Your task to perform on an android device: change the upload size in google photos Image 0: 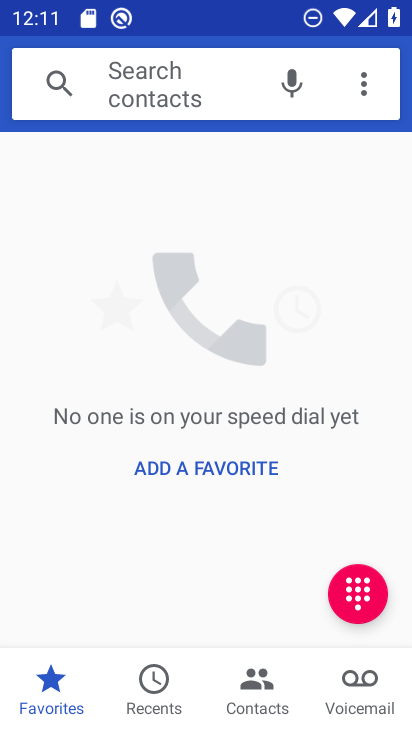
Step 0: press home button
Your task to perform on an android device: change the upload size in google photos Image 1: 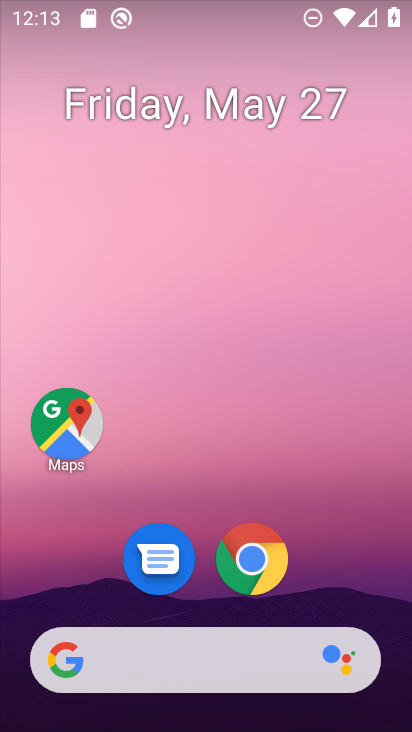
Step 1: drag from (283, 446) to (270, 249)
Your task to perform on an android device: change the upload size in google photos Image 2: 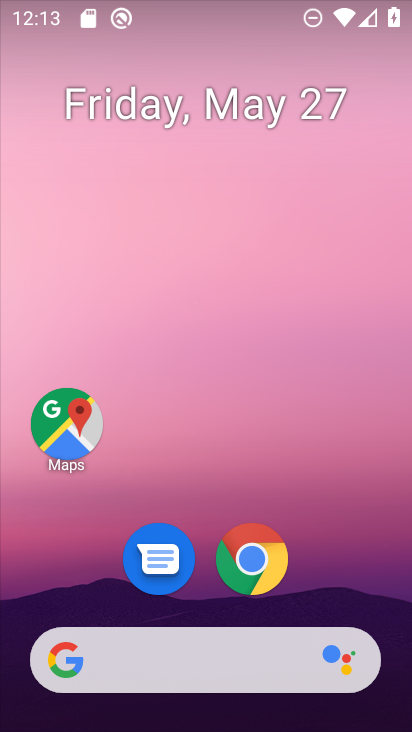
Step 2: drag from (281, 299) to (257, 4)
Your task to perform on an android device: change the upload size in google photos Image 3: 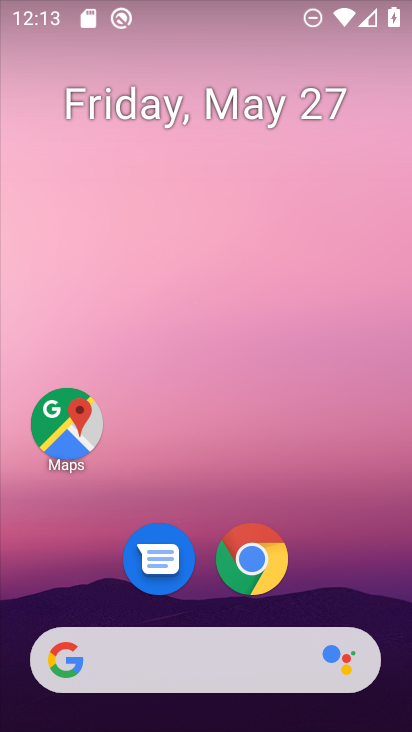
Step 3: drag from (300, 546) to (281, 8)
Your task to perform on an android device: change the upload size in google photos Image 4: 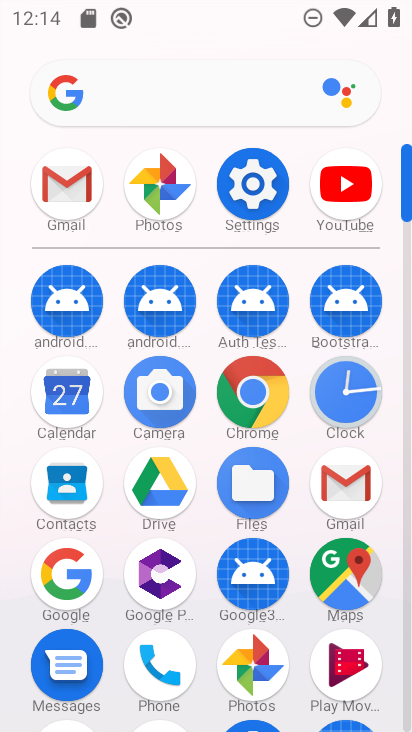
Step 4: click (256, 659)
Your task to perform on an android device: change the upload size in google photos Image 5: 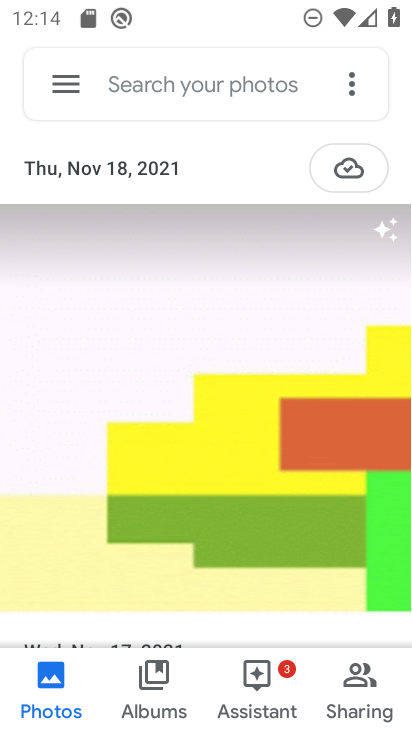
Step 5: click (68, 72)
Your task to perform on an android device: change the upload size in google photos Image 6: 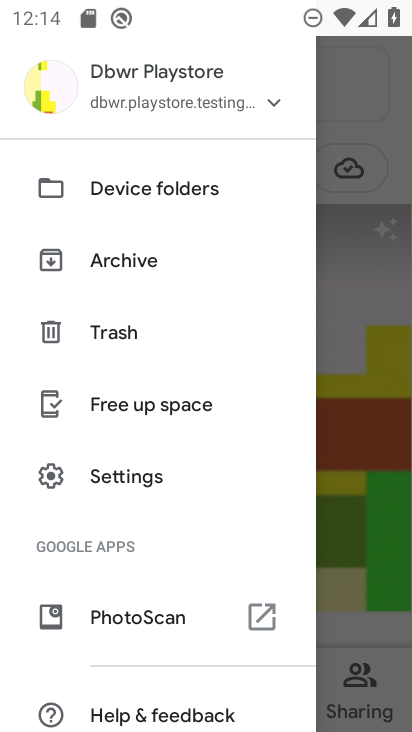
Step 6: click (167, 62)
Your task to perform on an android device: change the upload size in google photos Image 7: 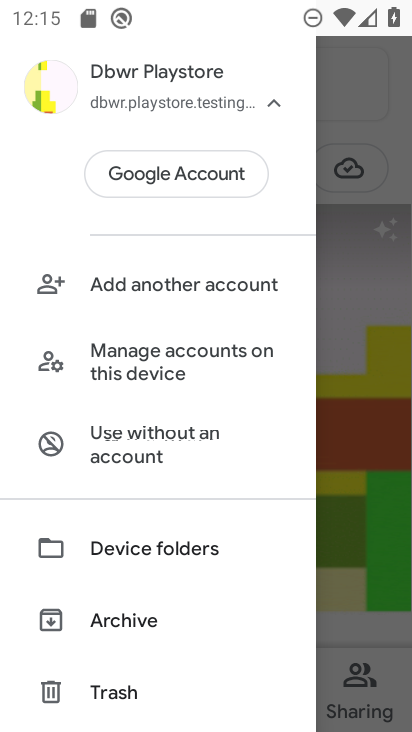
Step 7: click (133, 90)
Your task to perform on an android device: change the upload size in google photos Image 8: 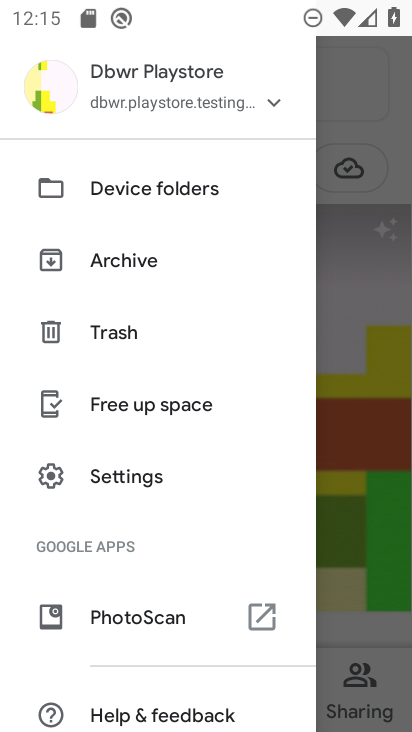
Step 8: click (91, 473)
Your task to perform on an android device: change the upload size in google photos Image 9: 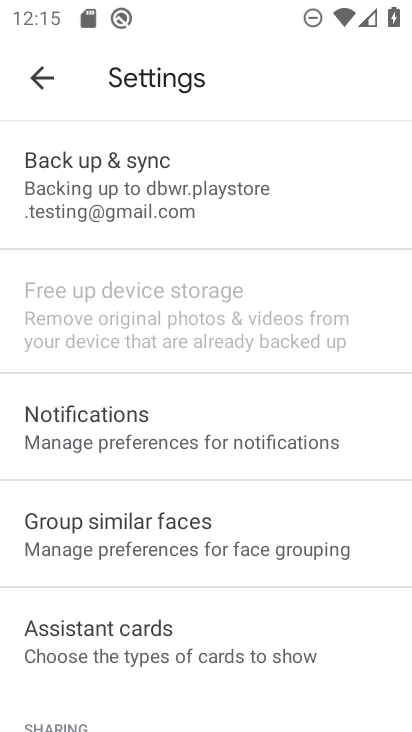
Step 9: click (210, 194)
Your task to perform on an android device: change the upload size in google photos Image 10: 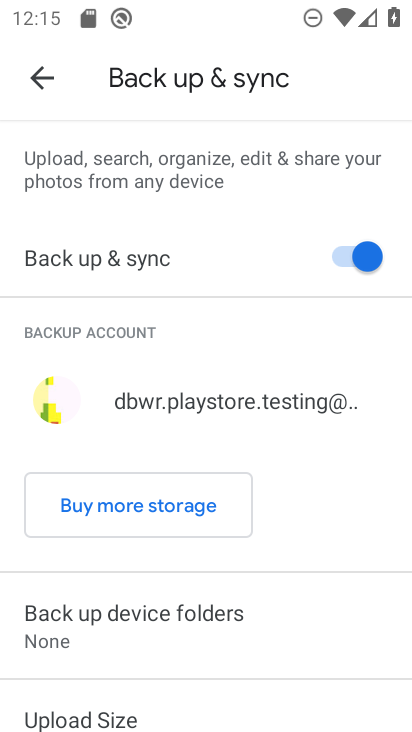
Step 10: click (101, 707)
Your task to perform on an android device: change the upload size in google photos Image 11: 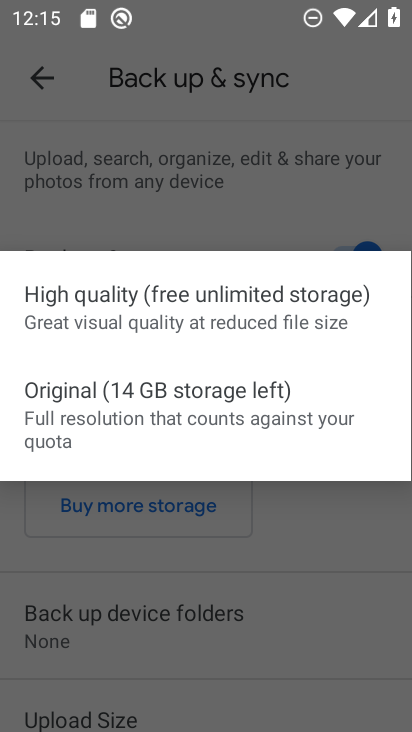
Step 11: click (246, 435)
Your task to perform on an android device: change the upload size in google photos Image 12: 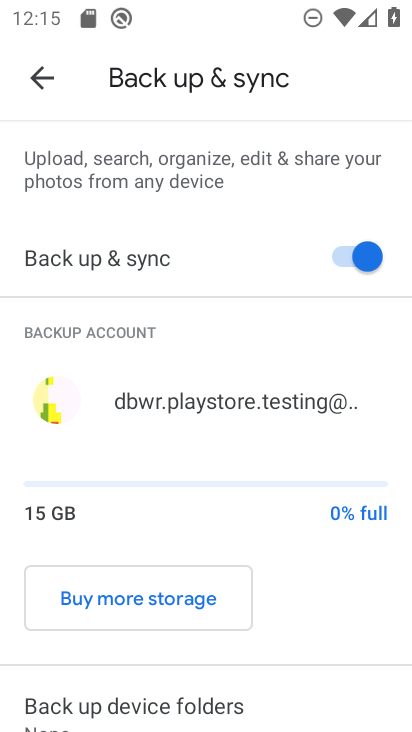
Step 12: task complete